Your task to perform on an android device: turn on notifications settings in the gmail app Image 0: 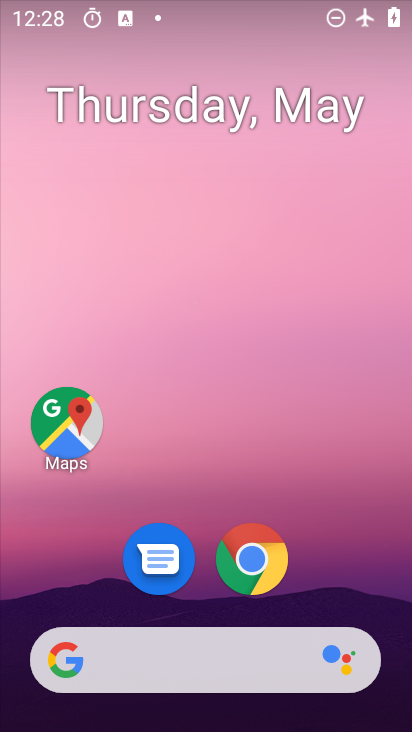
Step 0: drag from (157, 700) to (282, 273)
Your task to perform on an android device: turn on notifications settings in the gmail app Image 1: 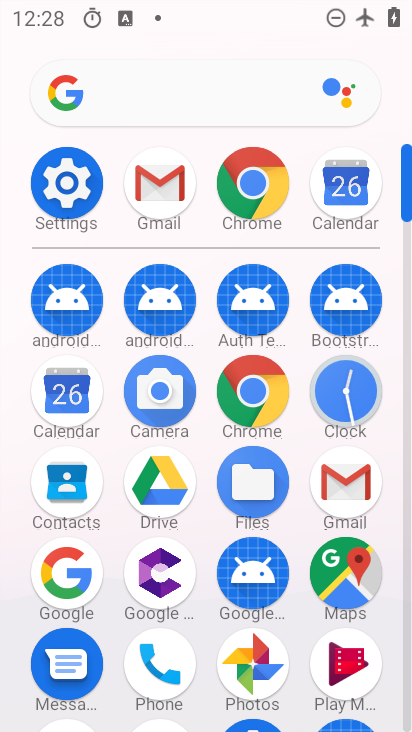
Step 1: click (345, 492)
Your task to perform on an android device: turn on notifications settings in the gmail app Image 2: 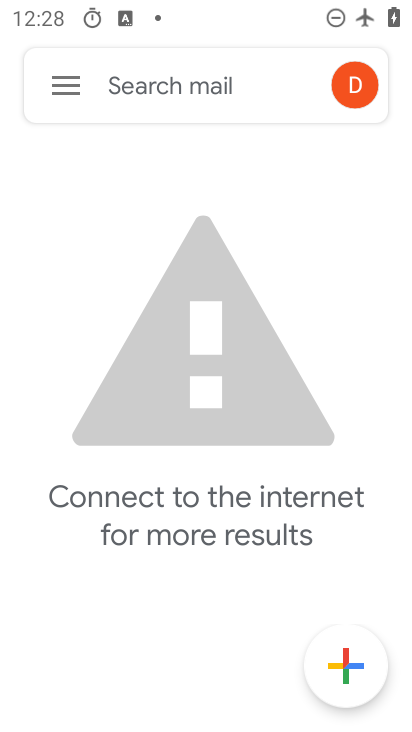
Step 2: click (60, 89)
Your task to perform on an android device: turn on notifications settings in the gmail app Image 3: 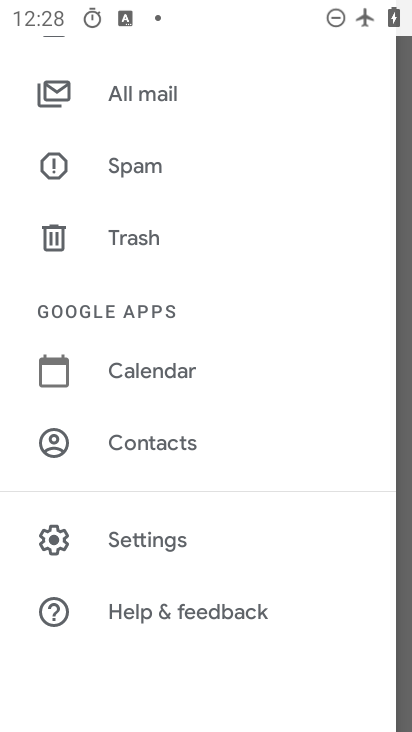
Step 3: click (172, 538)
Your task to perform on an android device: turn on notifications settings in the gmail app Image 4: 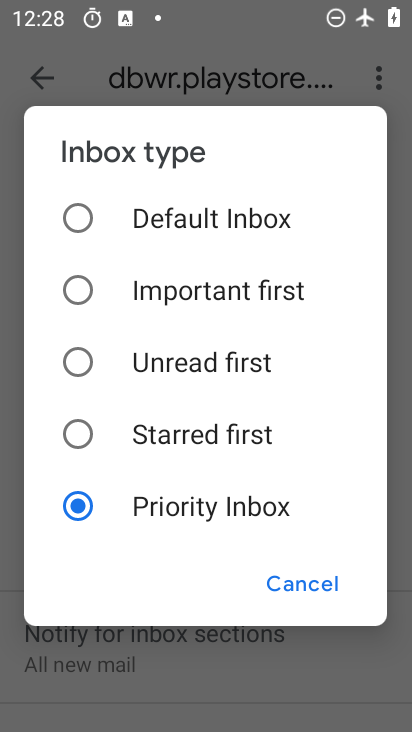
Step 4: click (308, 582)
Your task to perform on an android device: turn on notifications settings in the gmail app Image 5: 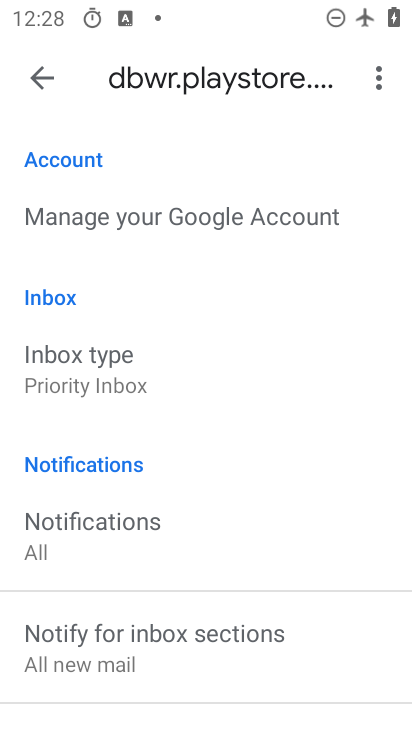
Step 5: click (63, 88)
Your task to perform on an android device: turn on notifications settings in the gmail app Image 6: 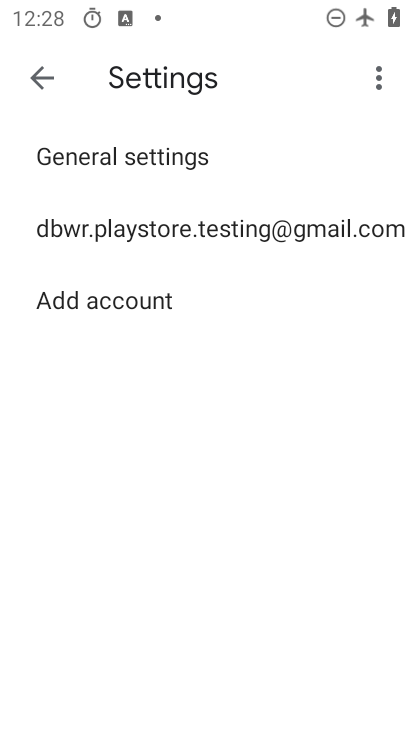
Step 6: click (190, 165)
Your task to perform on an android device: turn on notifications settings in the gmail app Image 7: 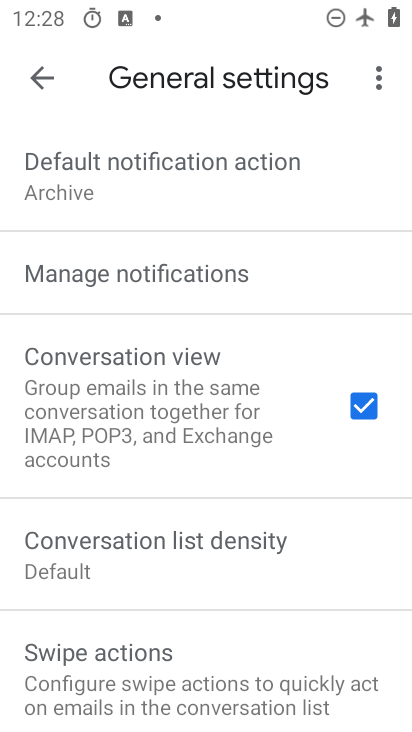
Step 7: click (185, 262)
Your task to perform on an android device: turn on notifications settings in the gmail app Image 8: 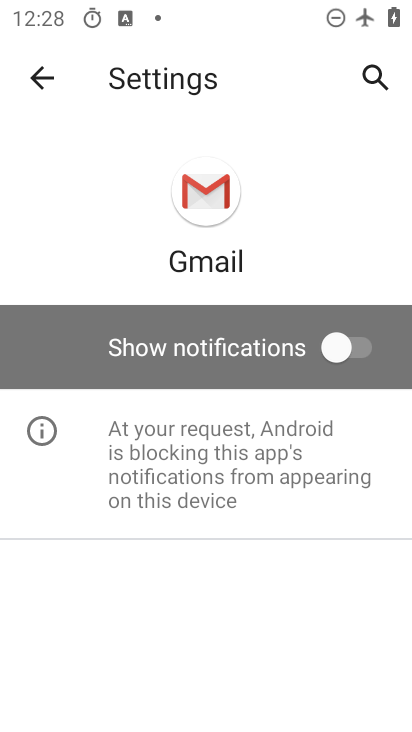
Step 8: click (201, 352)
Your task to perform on an android device: turn on notifications settings in the gmail app Image 9: 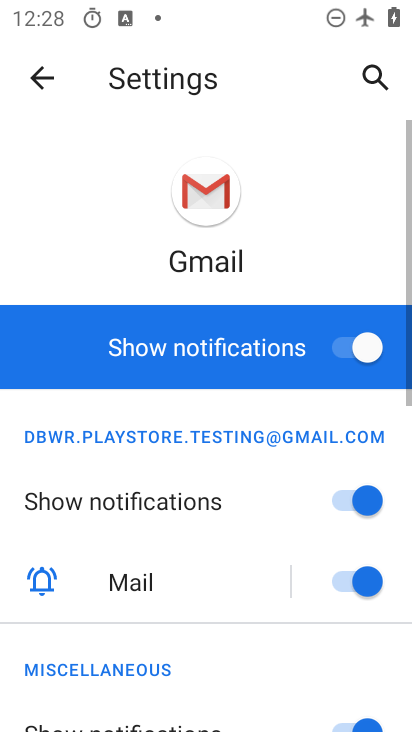
Step 9: task complete